Your task to perform on an android device: turn on data saver in the chrome app Image 0: 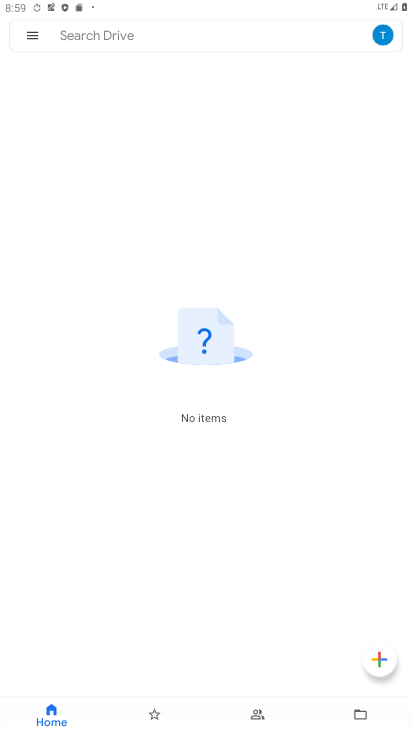
Step 0: press home button
Your task to perform on an android device: turn on data saver in the chrome app Image 1: 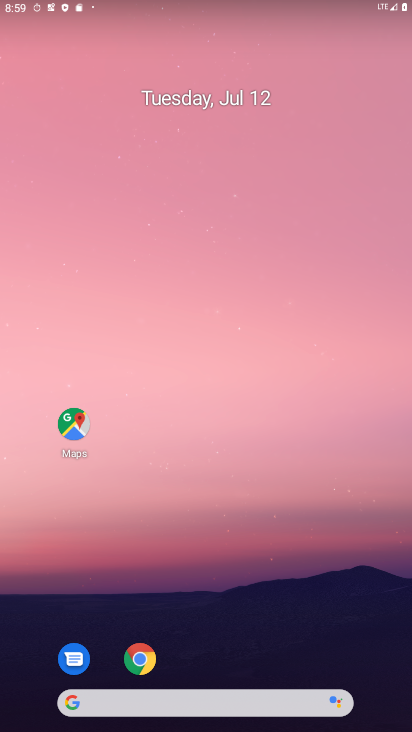
Step 1: drag from (377, 655) to (181, 42)
Your task to perform on an android device: turn on data saver in the chrome app Image 2: 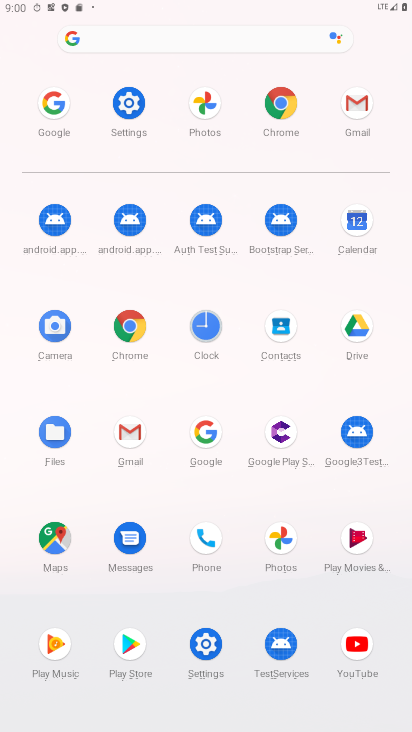
Step 2: click (124, 329)
Your task to perform on an android device: turn on data saver in the chrome app Image 3: 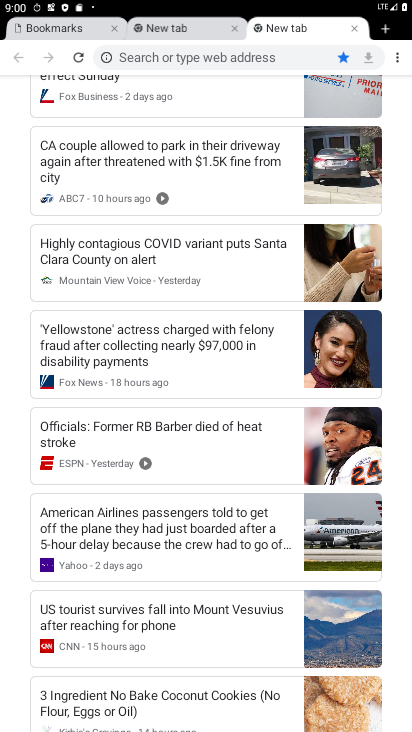
Step 3: click (392, 56)
Your task to perform on an android device: turn on data saver in the chrome app Image 4: 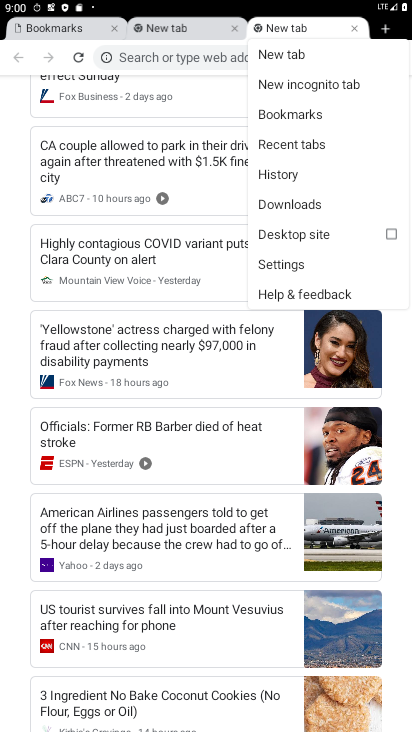
Step 4: click (281, 262)
Your task to perform on an android device: turn on data saver in the chrome app Image 5: 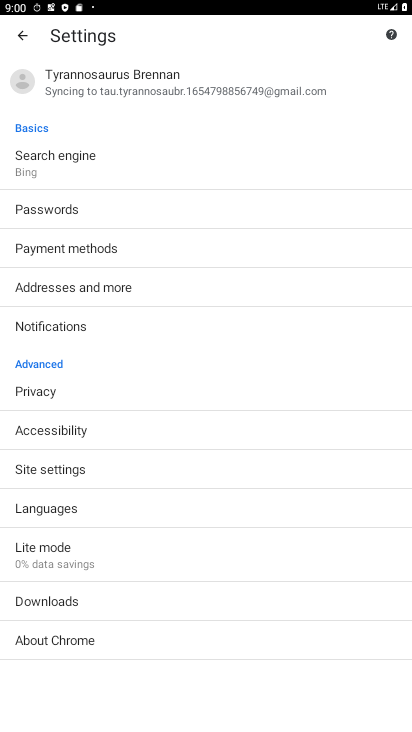
Step 5: click (75, 553)
Your task to perform on an android device: turn on data saver in the chrome app Image 6: 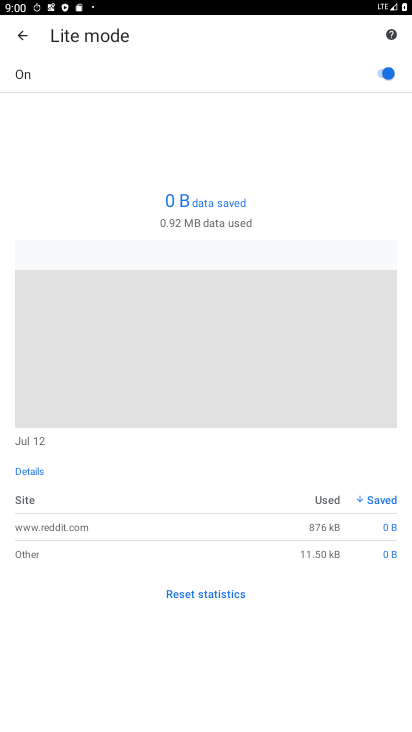
Step 6: task complete